Your task to perform on an android device: Open the web browser Image 0: 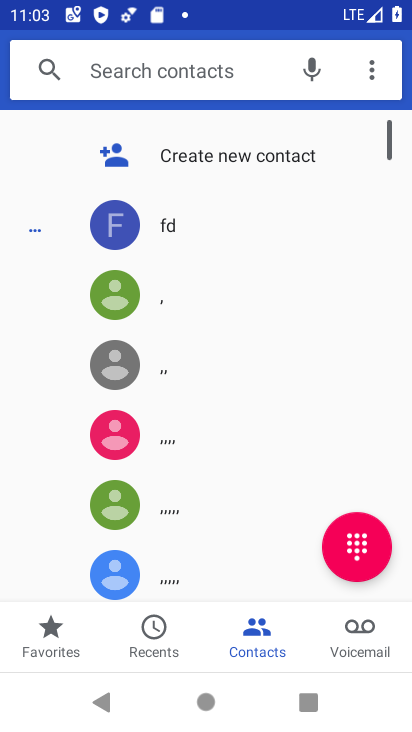
Step 0: press home button
Your task to perform on an android device: Open the web browser Image 1: 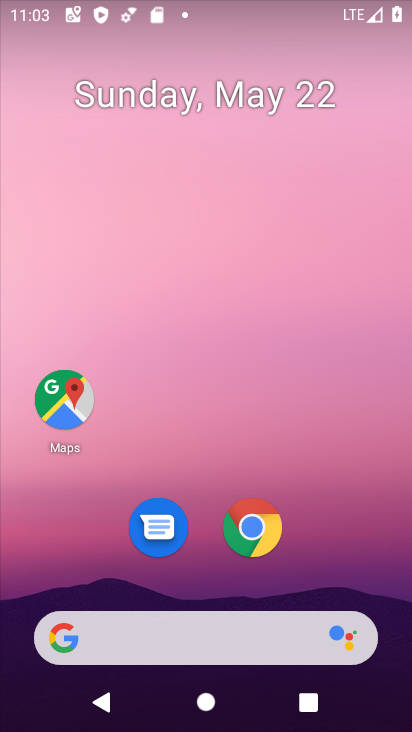
Step 1: click (245, 549)
Your task to perform on an android device: Open the web browser Image 2: 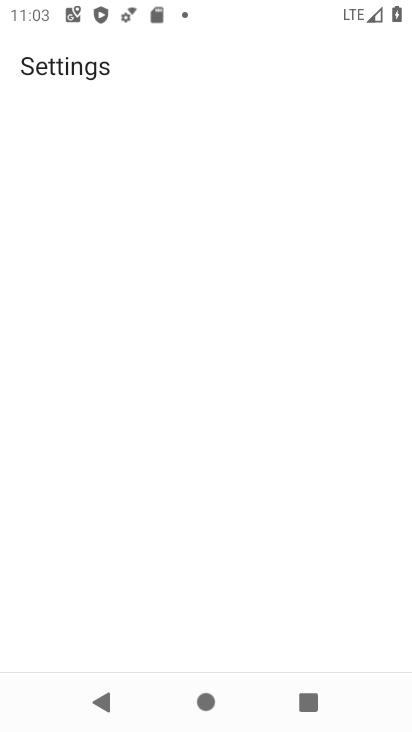
Step 2: task complete